Your task to perform on an android device: Open my contact list Image 0: 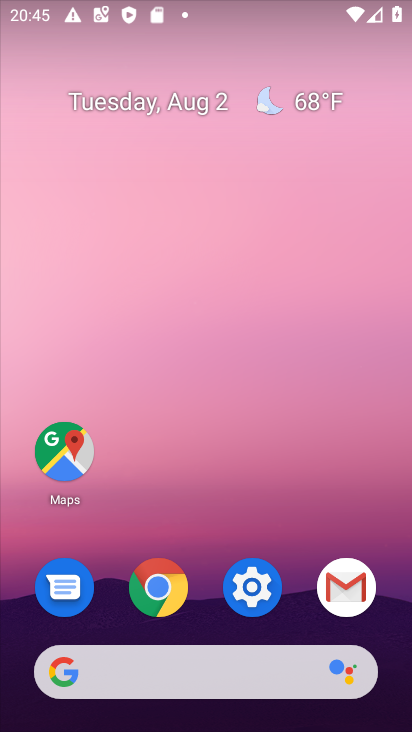
Step 0: drag from (255, 701) to (177, 120)
Your task to perform on an android device: Open my contact list Image 1: 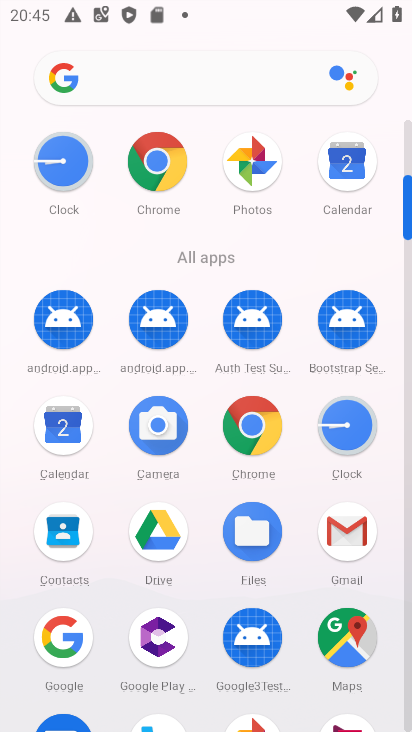
Step 1: drag from (191, 472) to (178, 344)
Your task to perform on an android device: Open my contact list Image 2: 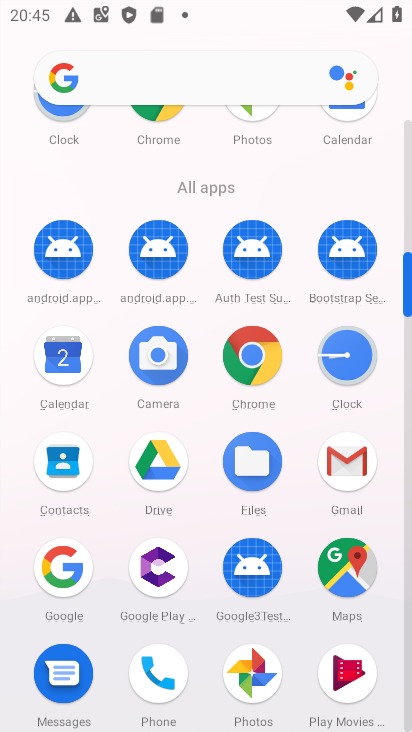
Step 2: click (162, 654)
Your task to perform on an android device: Open my contact list Image 3: 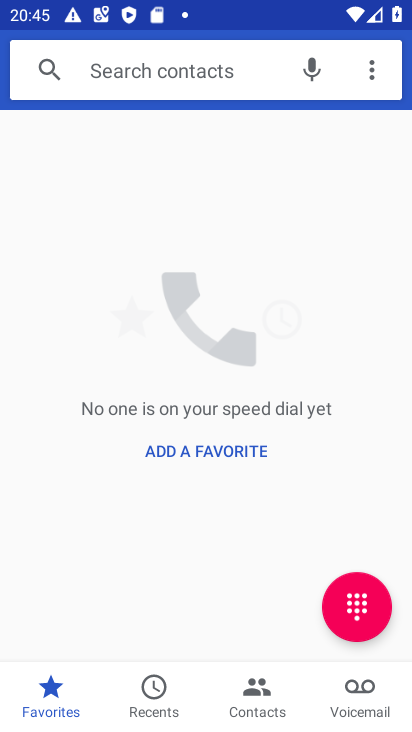
Step 3: click (256, 693)
Your task to perform on an android device: Open my contact list Image 4: 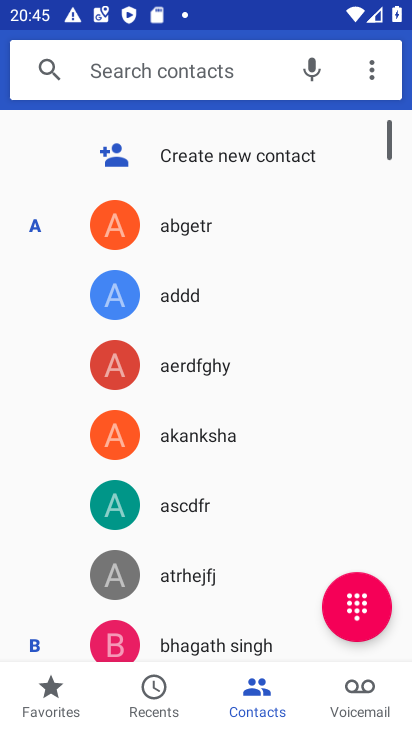
Step 4: task complete